Your task to perform on an android device: Go to sound settings Image 0: 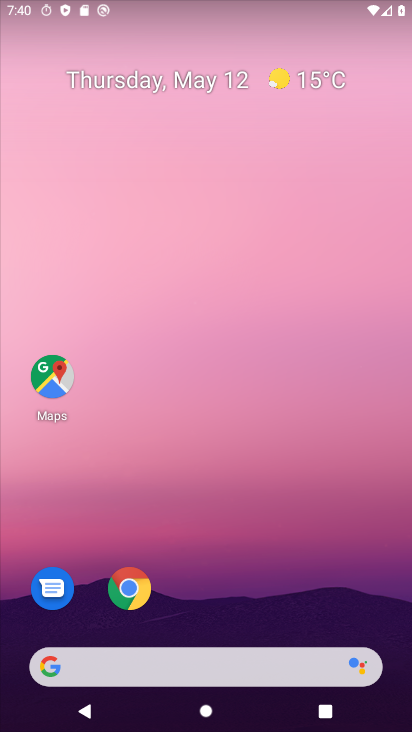
Step 0: drag from (213, 633) to (251, 157)
Your task to perform on an android device: Go to sound settings Image 1: 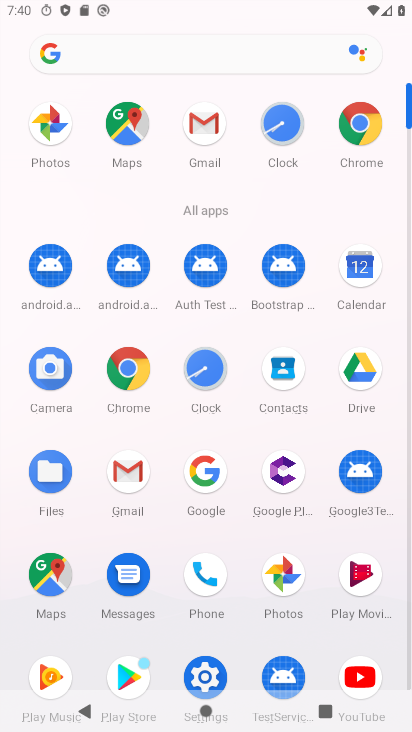
Step 1: click (199, 675)
Your task to perform on an android device: Go to sound settings Image 2: 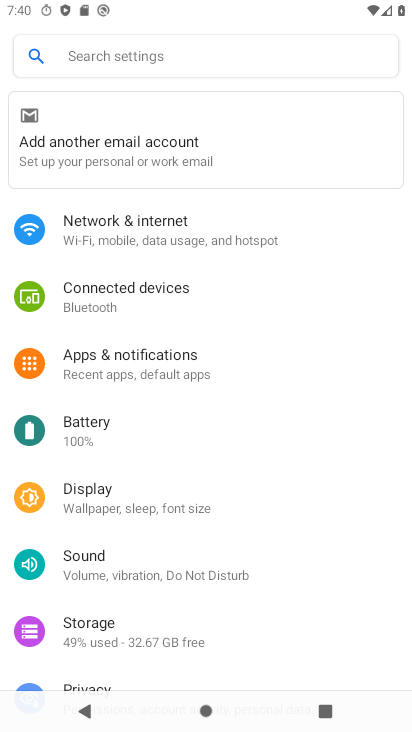
Step 2: click (99, 560)
Your task to perform on an android device: Go to sound settings Image 3: 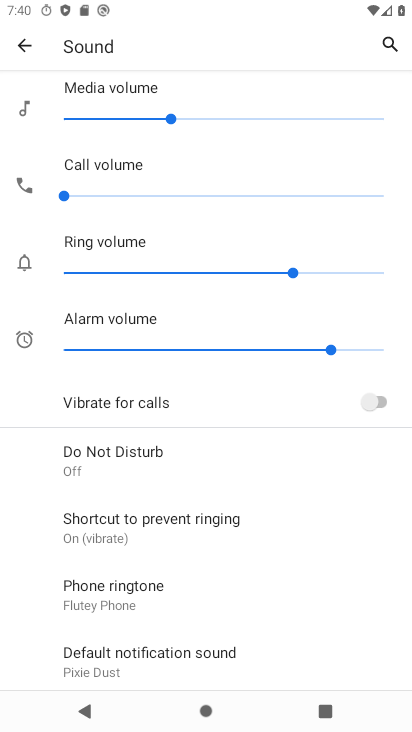
Step 3: task complete